Your task to perform on an android device: change timer sound Image 0: 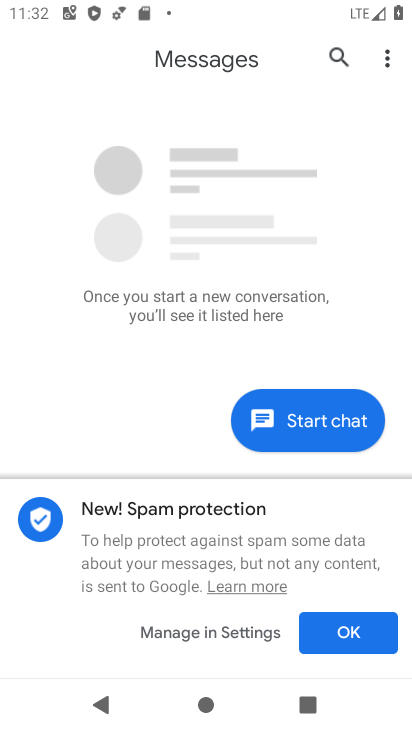
Step 0: press home button
Your task to perform on an android device: change timer sound Image 1: 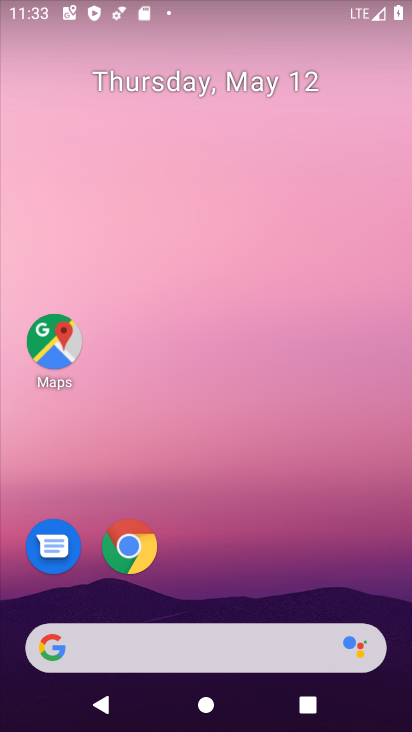
Step 1: drag from (232, 571) to (260, 13)
Your task to perform on an android device: change timer sound Image 2: 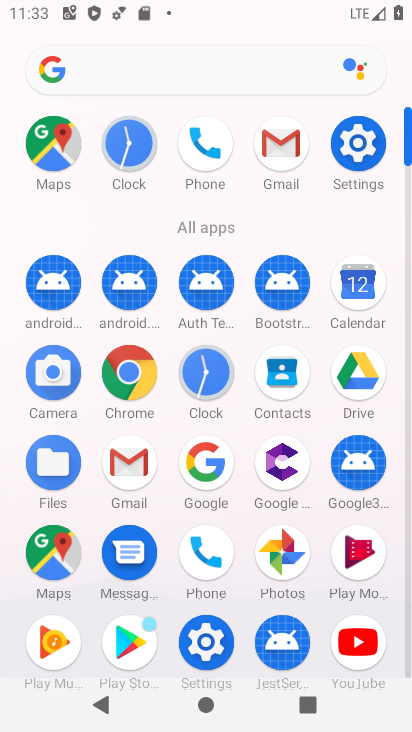
Step 2: click (206, 364)
Your task to perform on an android device: change timer sound Image 3: 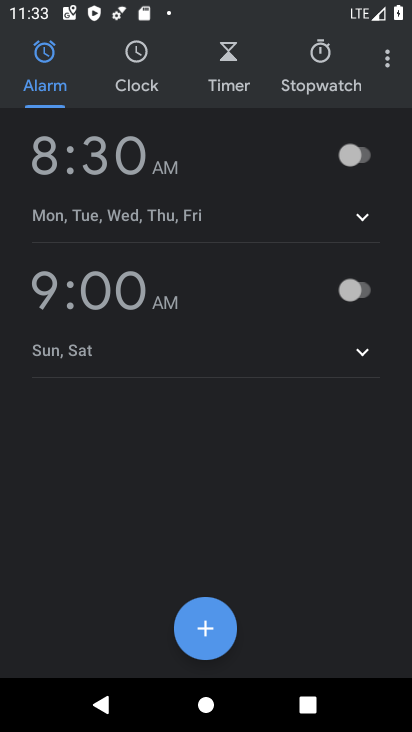
Step 3: click (393, 61)
Your task to perform on an android device: change timer sound Image 4: 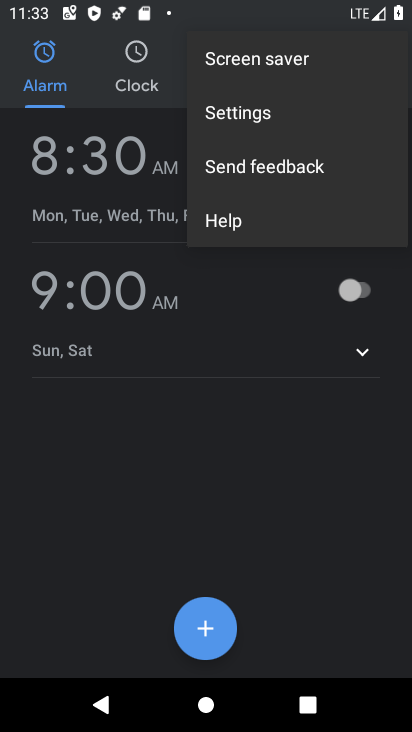
Step 4: click (284, 116)
Your task to perform on an android device: change timer sound Image 5: 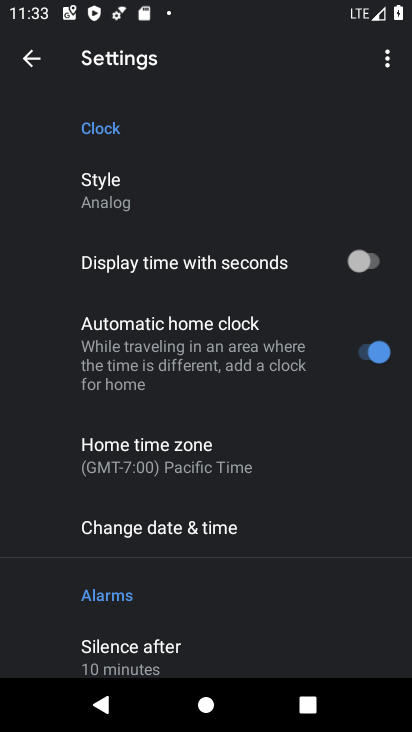
Step 5: drag from (290, 550) to (279, 186)
Your task to perform on an android device: change timer sound Image 6: 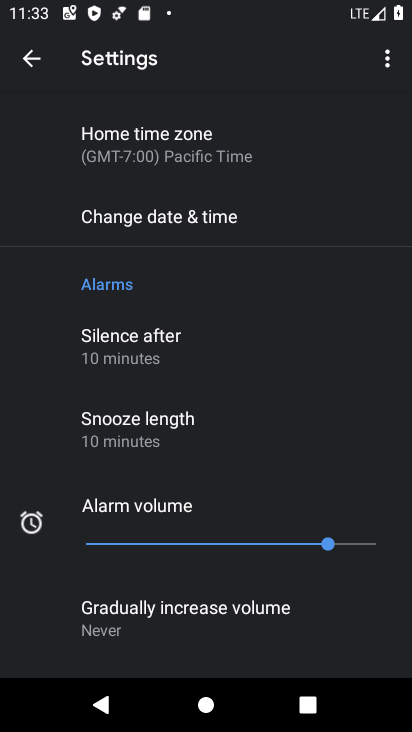
Step 6: drag from (267, 584) to (295, 181)
Your task to perform on an android device: change timer sound Image 7: 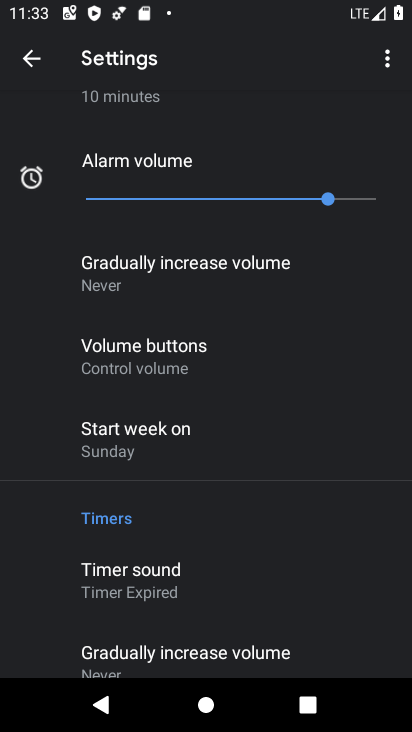
Step 7: click (161, 567)
Your task to perform on an android device: change timer sound Image 8: 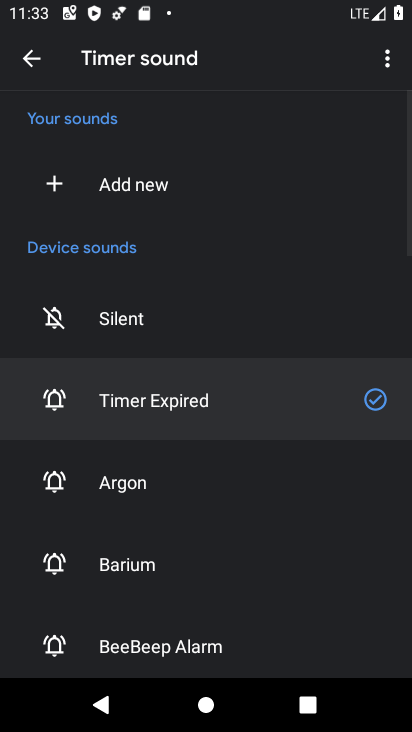
Step 8: click (157, 495)
Your task to perform on an android device: change timer sound Image 9: 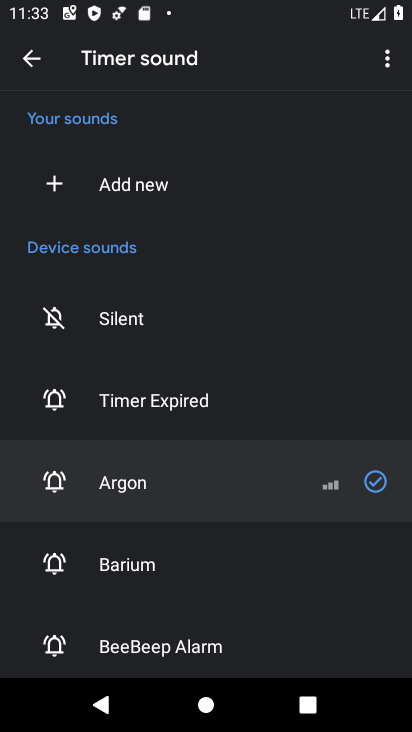
Step 9: task complete